Your task to perform on an android device: change notifications settings Image 0: 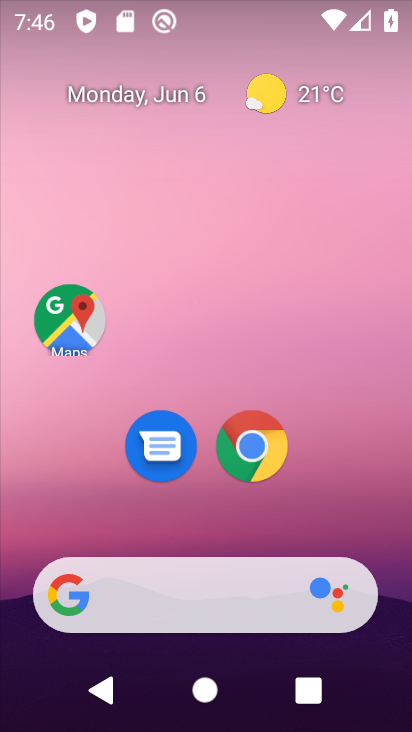
Step 0: drag from (273, 516) to (315, 118)
Your task to perform on an android device: change notifications settings Image 1: 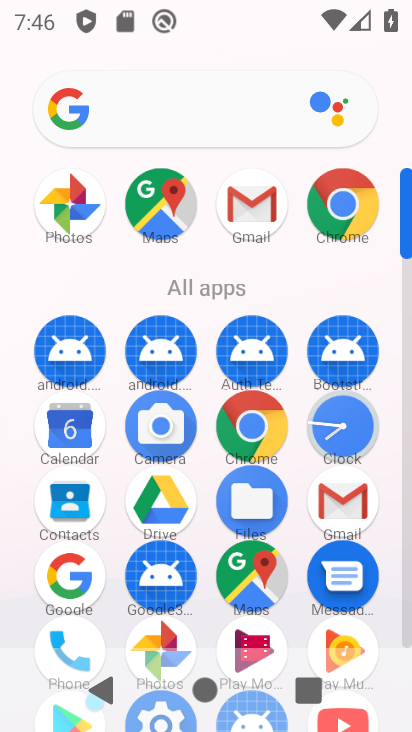
Step 1: drag from (206, 620) to (221, 280)
Your task to perform on an android device: change notifications settings Image 2: 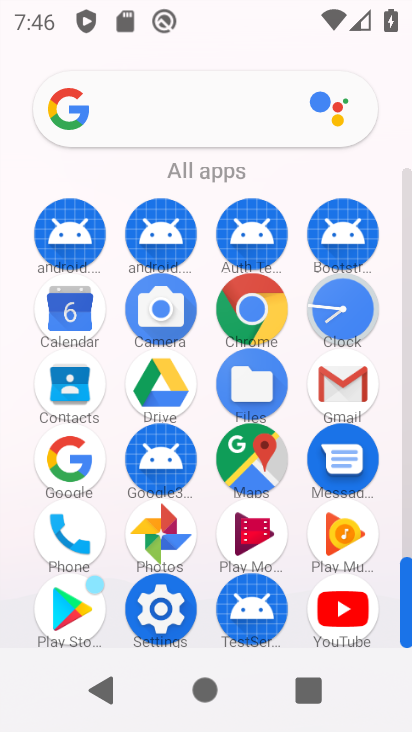
Step 2: click (159, 622)
Your task to perform on an android device: change notifications settings Image 3: 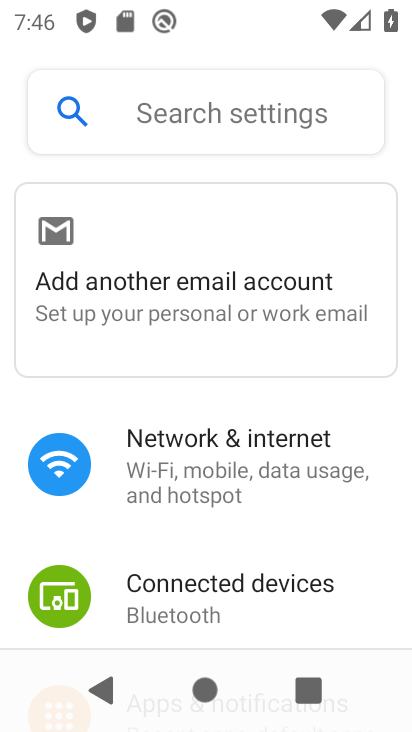
Step 3: drag from (280, 556) to (281, 136)
Your task to perform on an android device: change notifications settings Image 4: 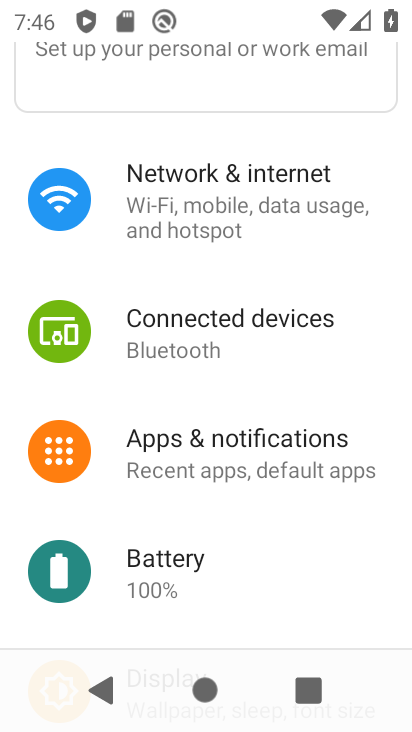
Step 4: click (258, 469)
Your task to perform on an android device: change notifications settings Image 5: 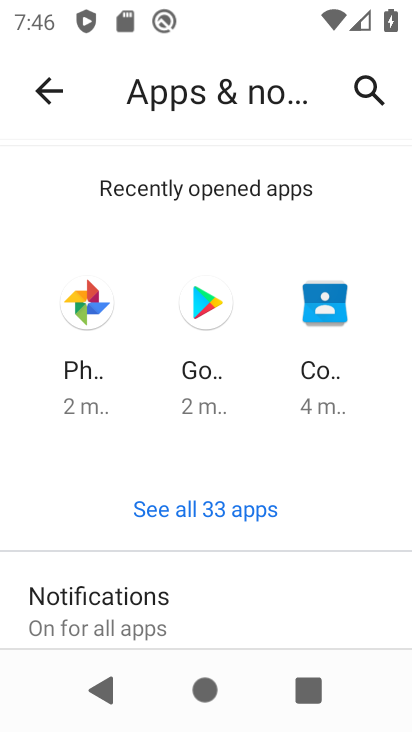
Step 5: click (220, 510)
Your task to perform on an android device: change notifications settings Image 6: 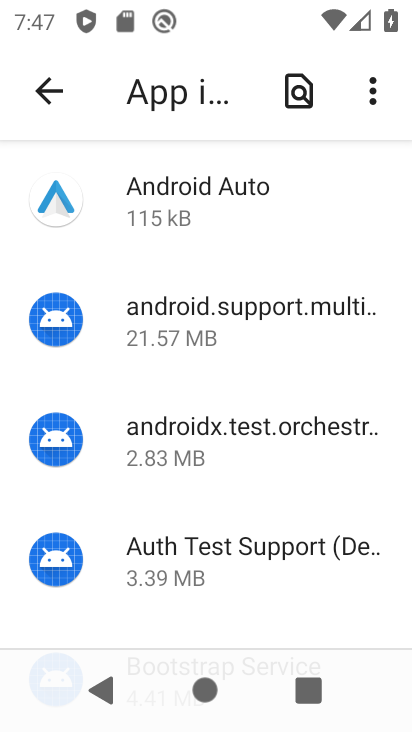
Step 6: click (258, 231)
Your task to perform on an android device: change notifications settings Image 7: 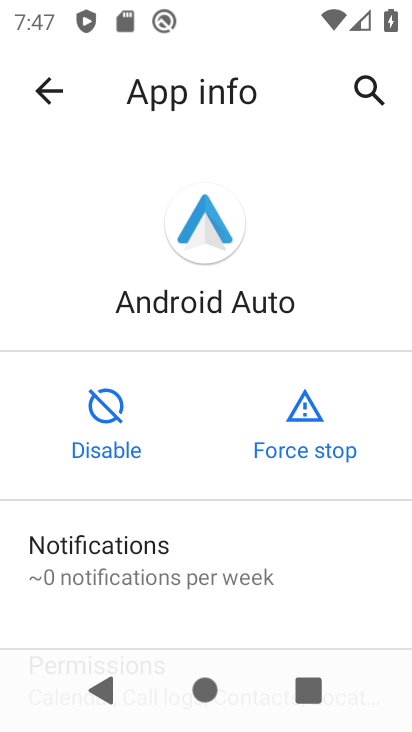
Step 7: click (156, 564)
Your task to perform on an android device: change notifications settings Image 8: 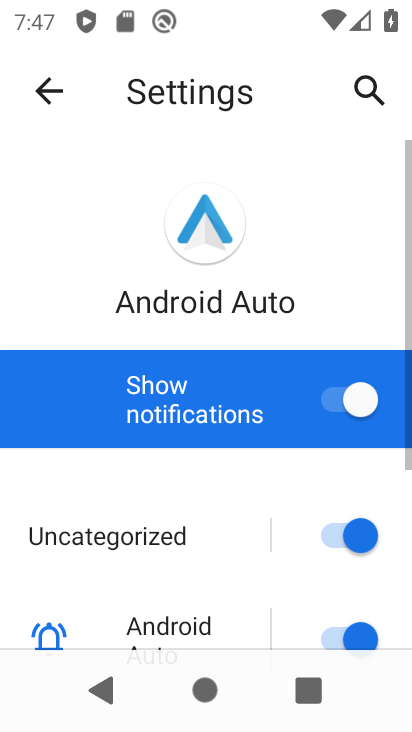
Step 8: click (339, 401)
Your task to perform on an android device: change notifications settings Image 9: 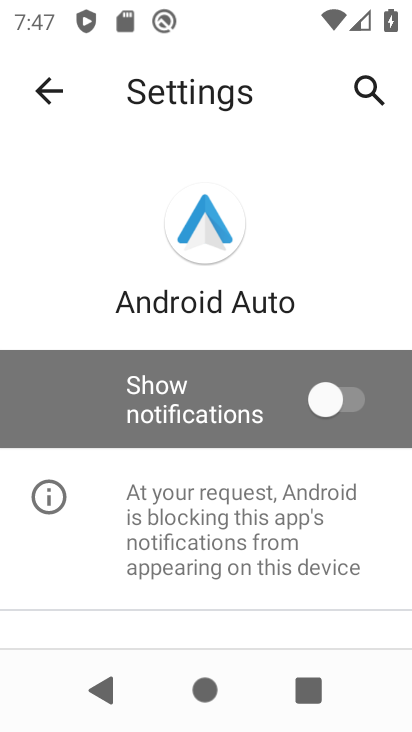
Step 9: task complete